Your task to perform on an android device: empty trash in the gmail app Image 0: 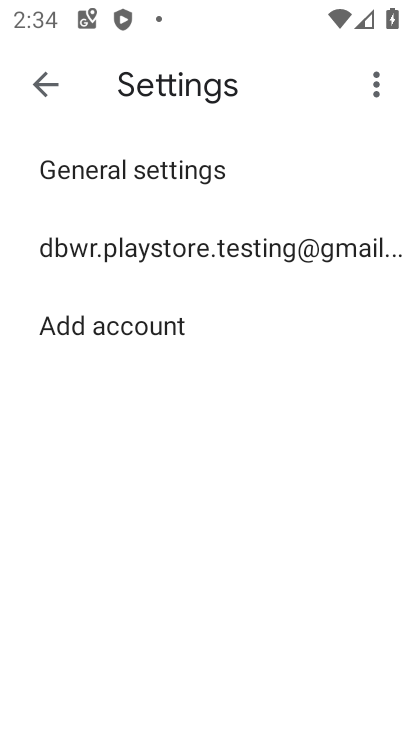
Step 0: click (48, 103)
Your task to perform on an android device: empty trash in the gmail app Image 1: 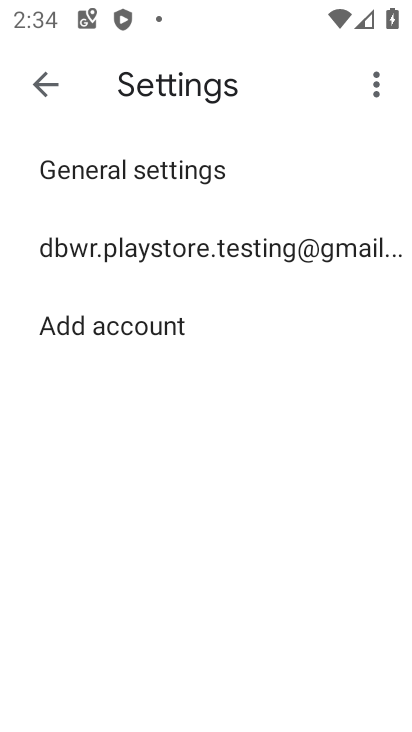
Step 1: click (48, 86)
Your task to perform on an android device: empty trash in the gmail app Image 2: 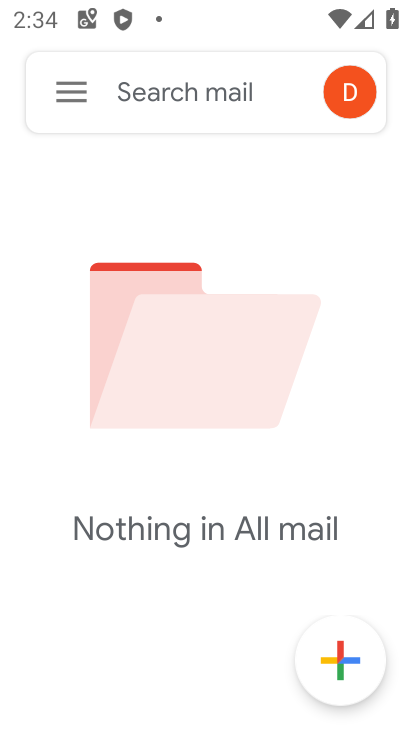
Step 2: click (72, 82)
Your task to perform on an android device: empty trash in the gmail app Image 3: 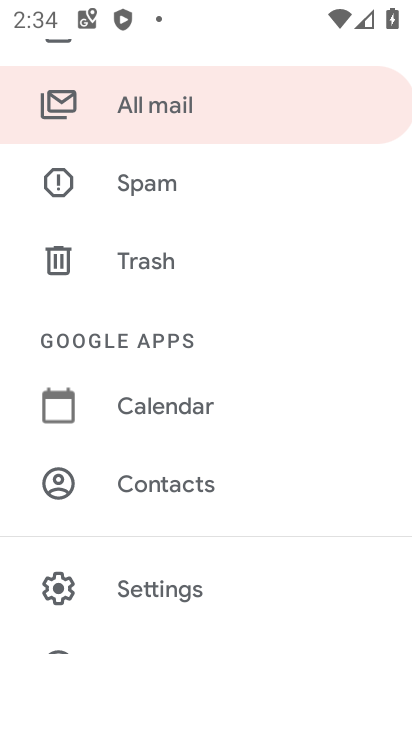
Step 3: click (176, 268)
Your task to perform on an android device: empty trash in the gmail app Image 4: 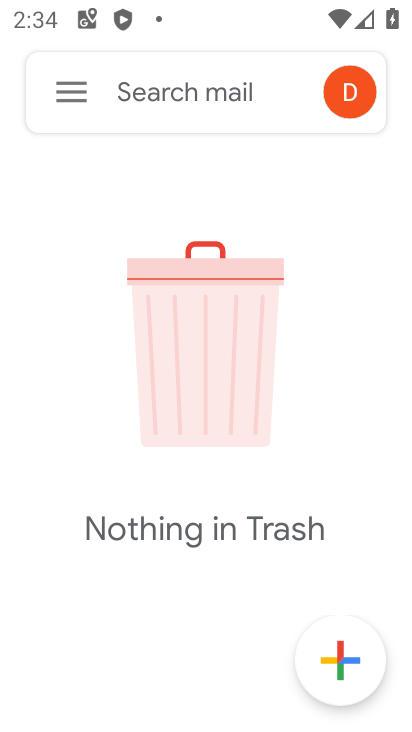
Step 4: task complete